Your task to perform on an android device: toggle pop-ups in chrome Image 0: 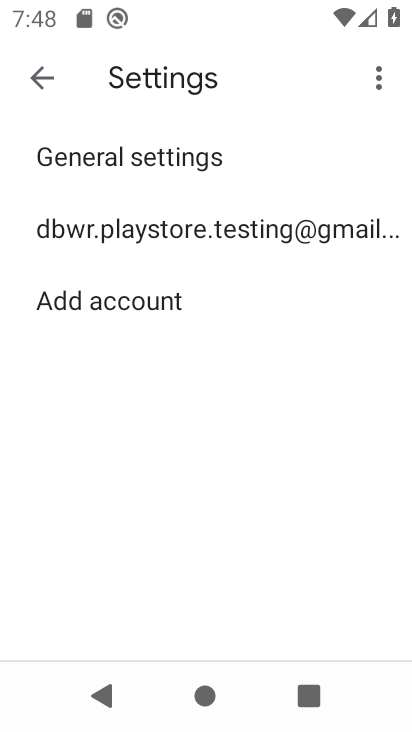
Step 0: press back button
Your task to perform on an android device: toggle pop-ups in chrome Image 1: 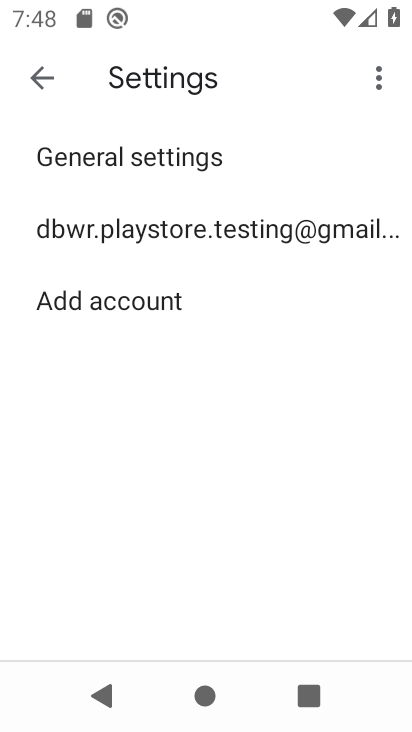
Step 1: press back button
Your task to perform on an android device: toggle pop-ups in chrome Image 2: 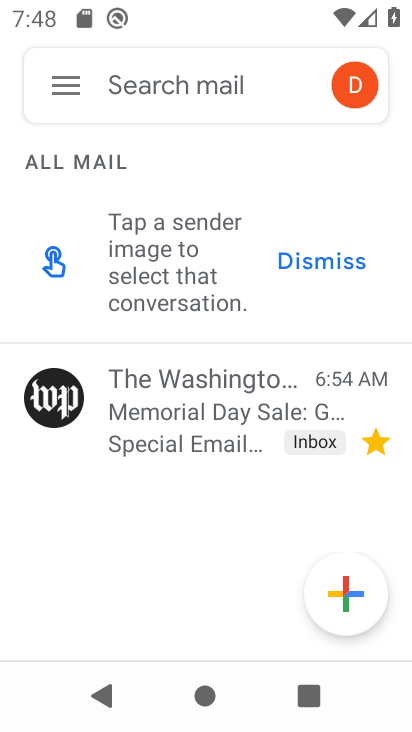
Step 2: press back button
Your task to perform on an android device: toggle pop-ups in chrome Image 3: 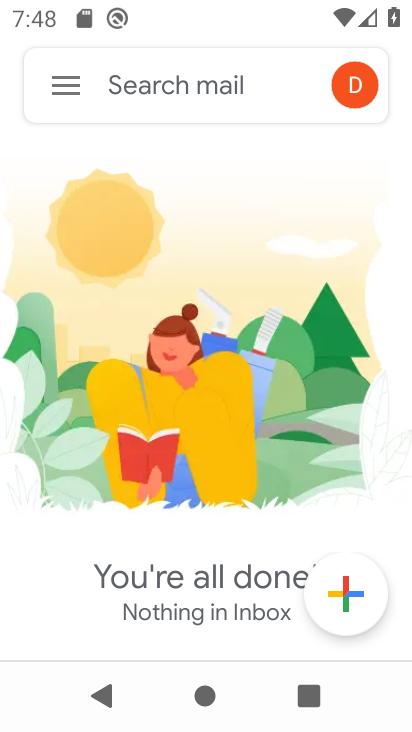
Step 3: press back button
Your task to perform on an android device: toggle pop-ups in chrome Image 4: 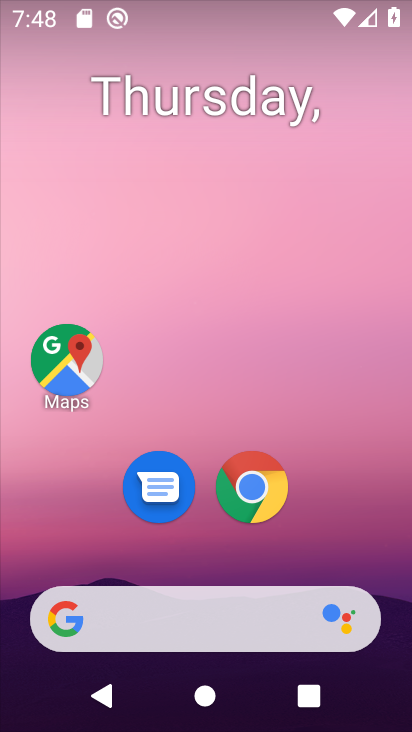
Step 4: click (269, 481)
Your task to perform on an android device: toggle pop-ups in chrome Image 5: 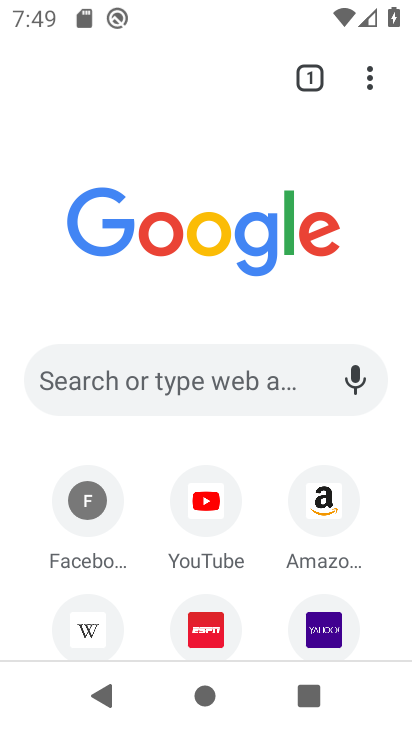
Step 5: drag from (369, 82) to (156, 542)
Your task to perform on an android device: toggle pop-ups in chrome Image 6: 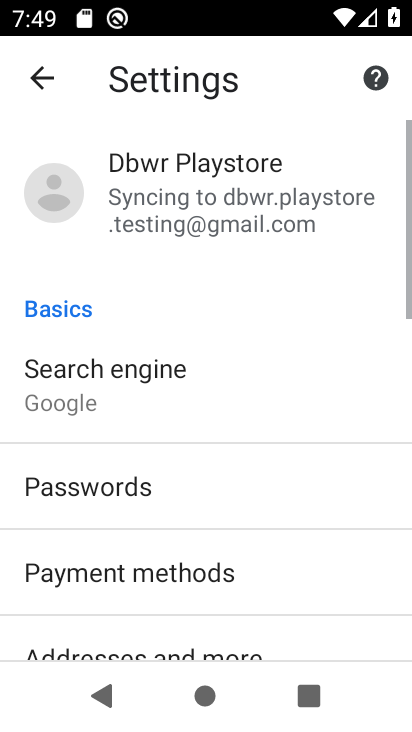
Step 6: drag from (209, 604) to (247, 119)
Your task to perform on an android device: toggle pop-ups in chrome Image 7: 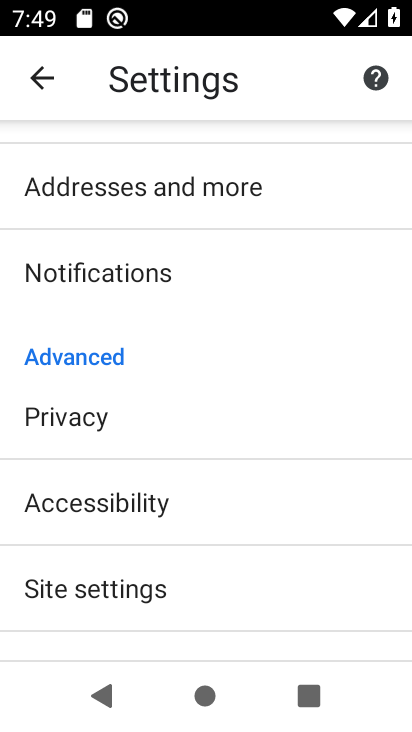
Step 7: click (85, 582)
Your task to perform on an android device: toggle pop-ups in chrome Image 8: 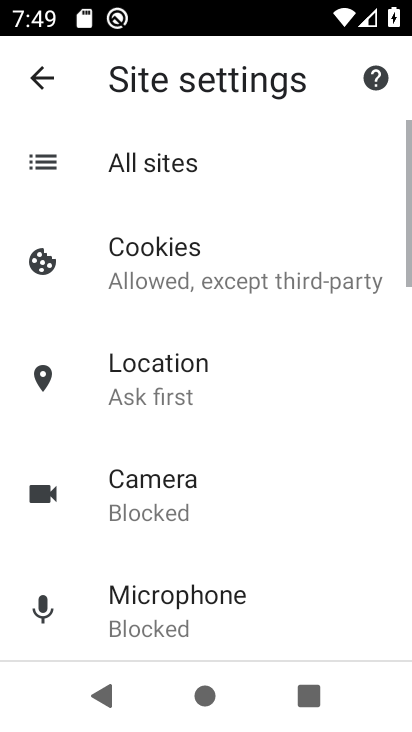
Step 8: drag from (171, 576) to (270, 134)
Your task to perform on an android device: toggle pop-ups in chrome Image 9: 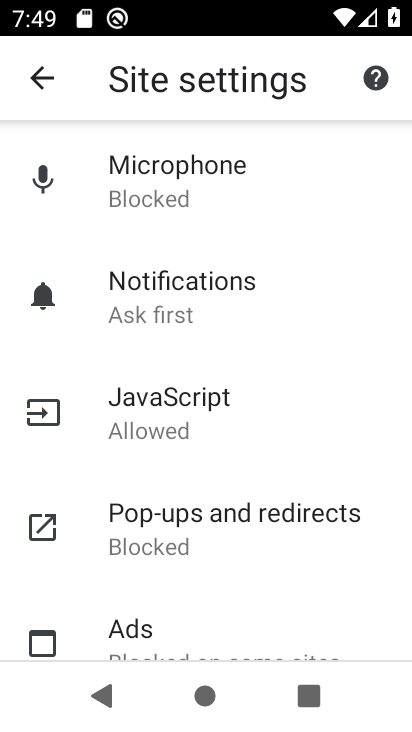
Step 9: click (149, 520)
Your task to perform on an android device: toggle pop-ups in chrome Image 10: 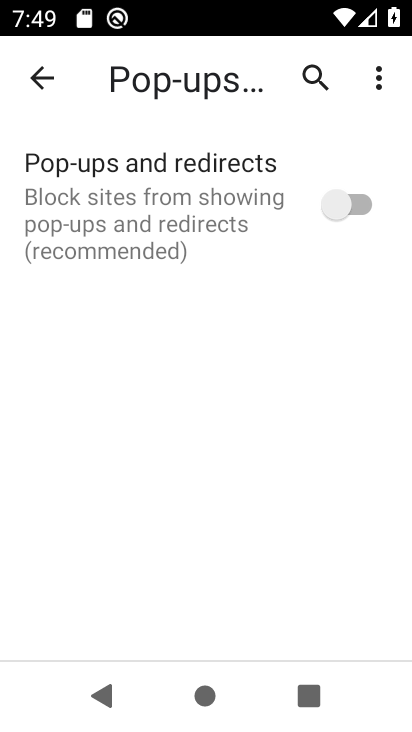
Step 10: click (336, 201)
Your task to perform on an android device: toggle pop-ups in chrome Image 11: 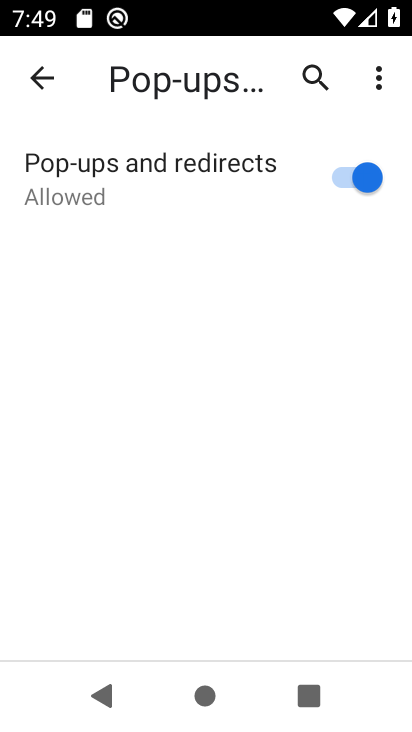
Step 11: task complete